Your task to perform on an android device: Open display settings Image 0: 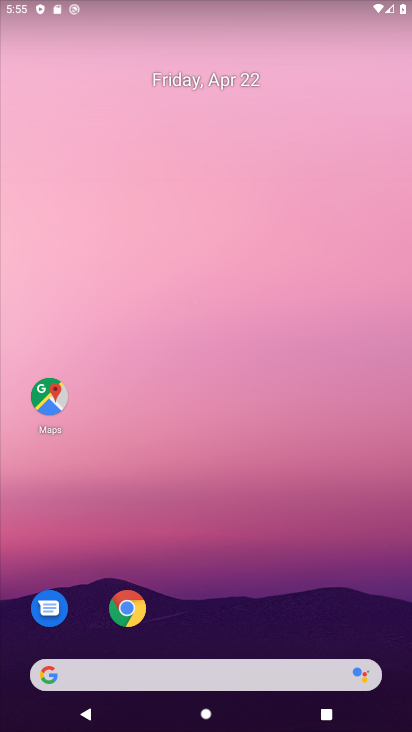
Step 0: drag from (248, 609) to (207, 150)
Your task to perform on an android device: Open display settings Image 1: 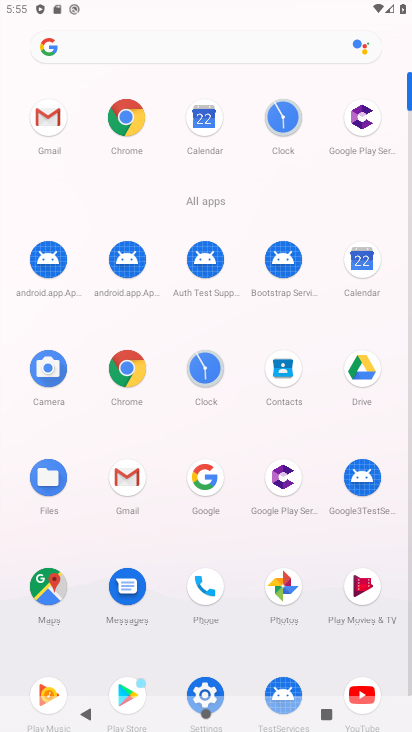
Step 1: click (209, 692)
Your task to perform on an android device: Open display settings Image 2: 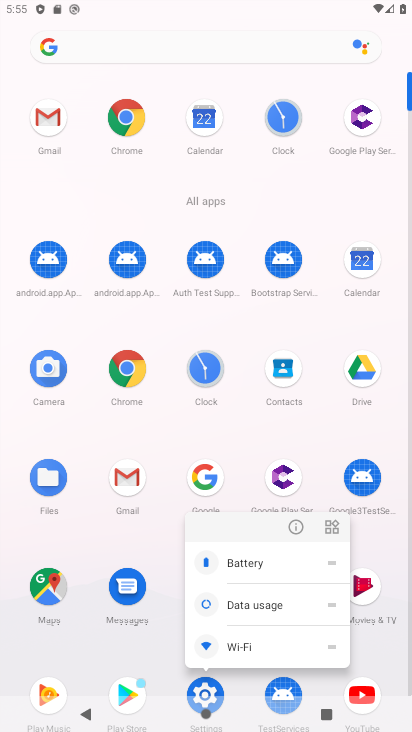
Step 2: click (203, 685)
Your task to perform on an android device: Open display settings Image 3: 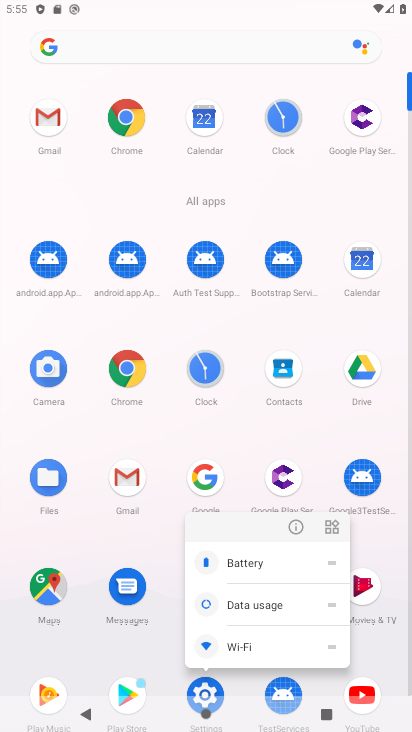
Step 3: click (207, 690)
Your task to perform on an android device: Open display settings Image 4: 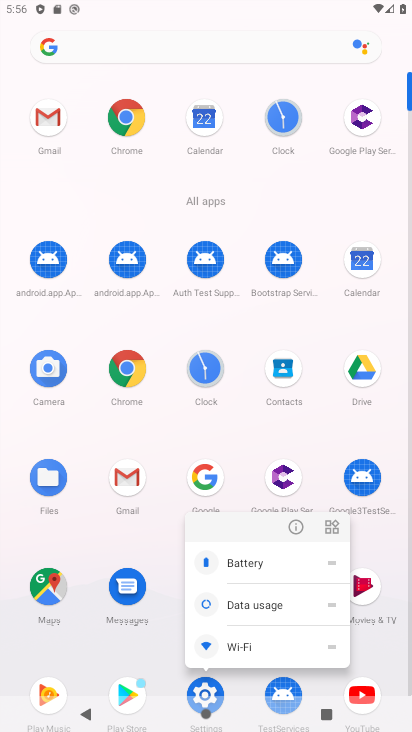
Step 4: click (205, 682)
Your task to perform on an android device: Open display settings Image 5: 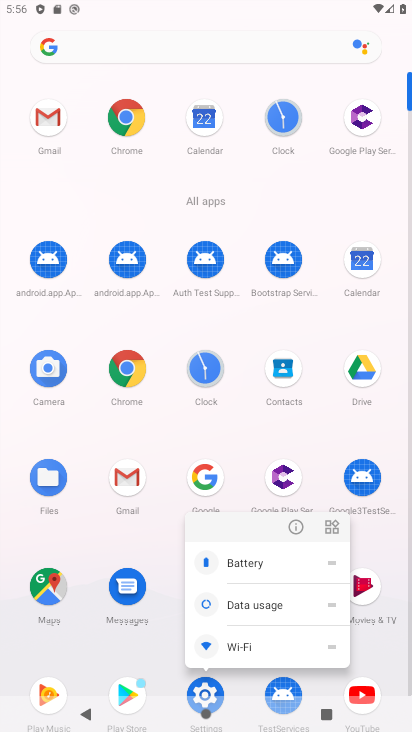
Step 5: click (203, 689)
Your task to perform on an android device: Open display settings Image 6: 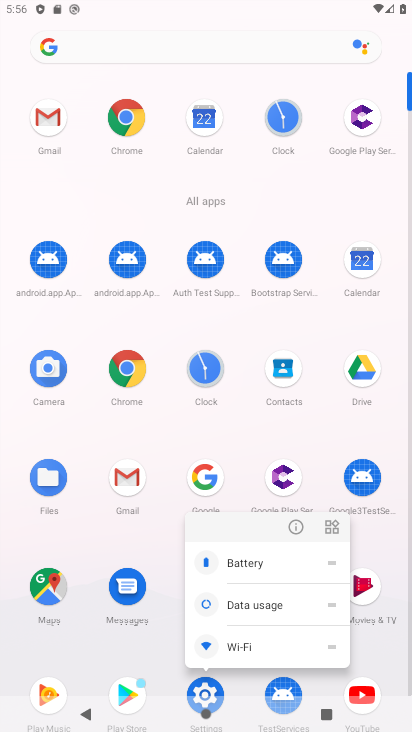
Step 6: click (203, 689)
Your task to perform on an android device: Open display settings Image 7: 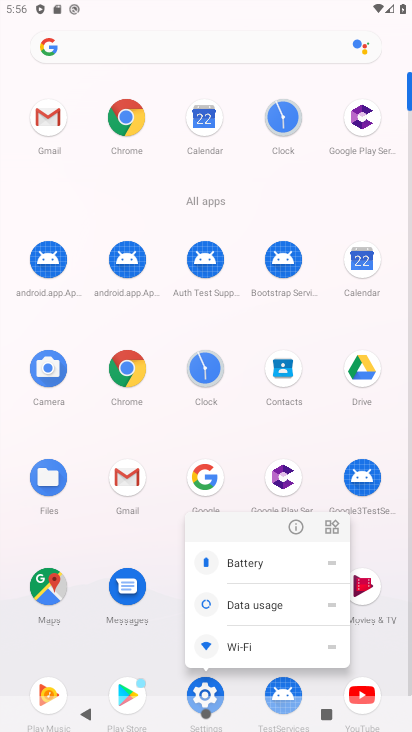
Step 7: click (202, 688)
Your task to perform on an android device: Open display settings Image 8: 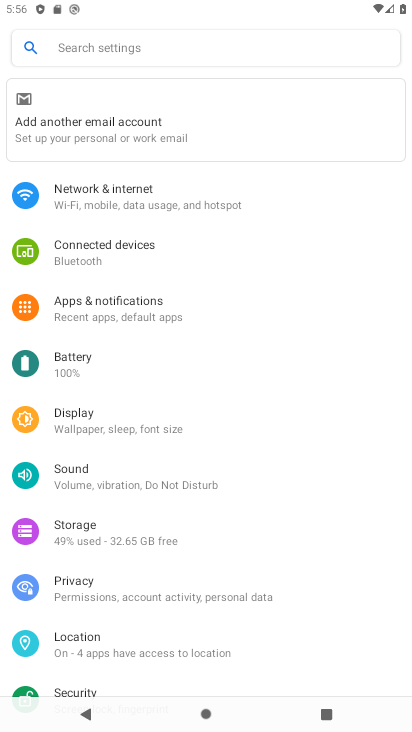
Step 8: click (106, 422)
Your task to perform on an android device: Open display settings Image 9: 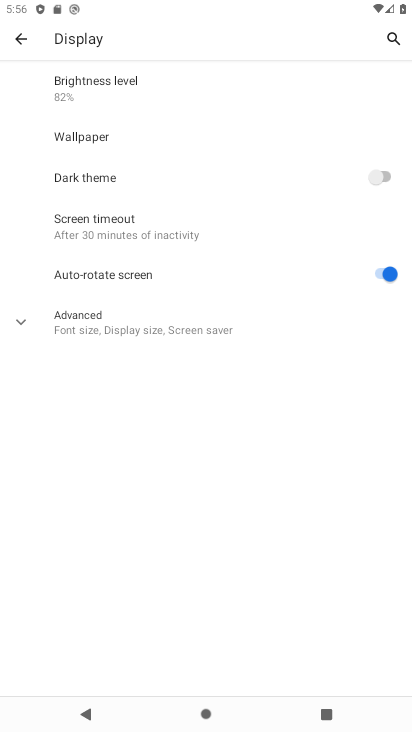
Step 9: task complete